Your task to perform on an android device: toggle sleep mode Image 0: 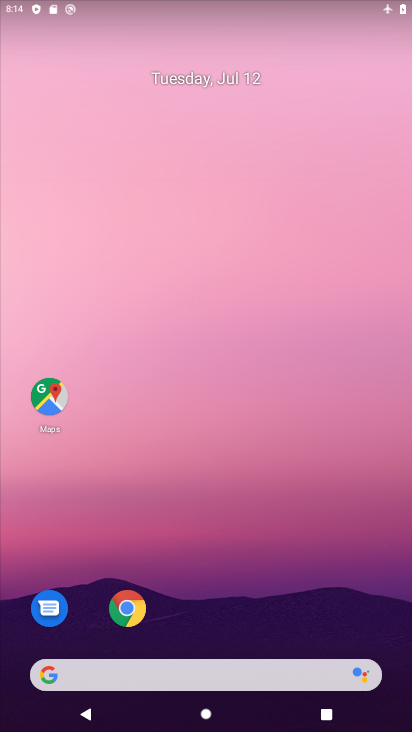
Step 0: drag from (260, 649) to (20, 23)
Your task to perform on an android device: toggle sleep mode Image 1: 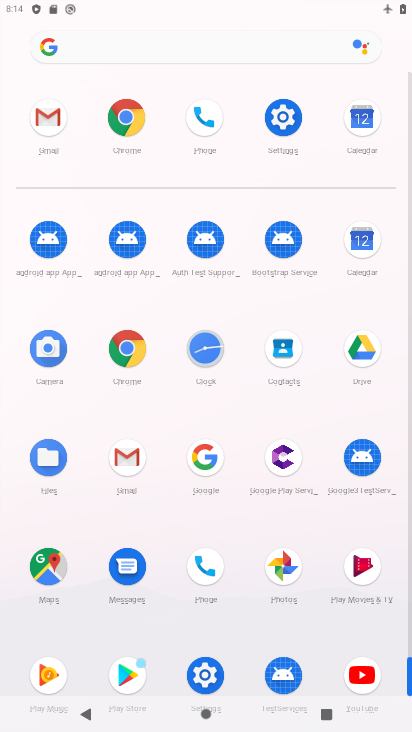
Step 1: click (296, 123)
Your task to perform on an android device: toggle sleep mode Image 2: 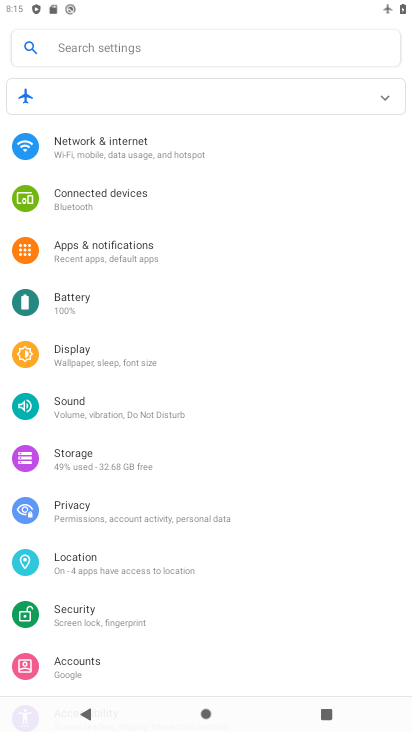
Step 2: click (88, 339)
Your task to perform on an android device: toggle sleep mode Image 3: 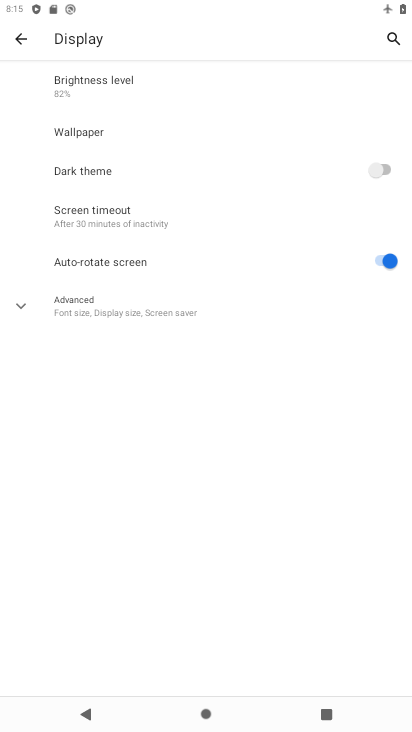
Step 3: click (53, 297)
Your task to perform on an android device: toggle sleep mode Image 4: 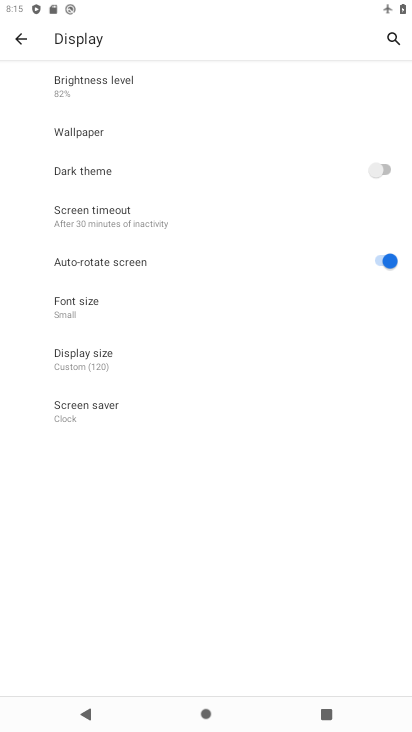
Step 4: task complete